Your task to perform on an android device: Open Wikipedia Image 0: 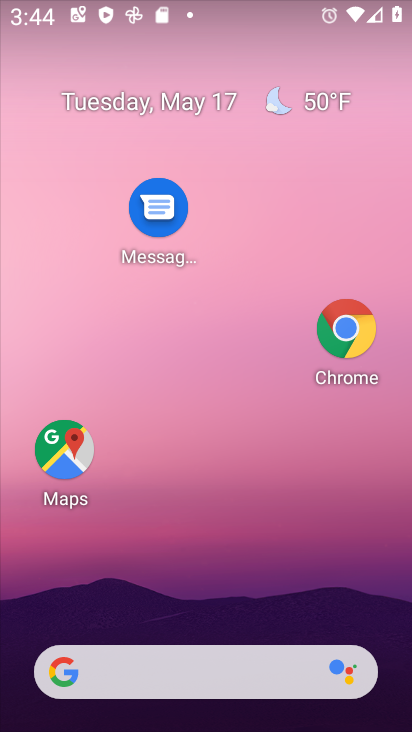
Step 0: click (348, 369)
Your task to perform on an android device: Open Wikipedia Image 1: 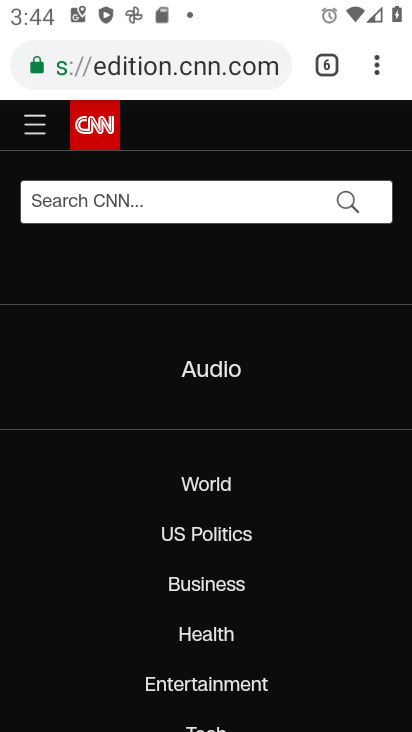
Step 1: click (221, 72)
Your task to perform on an android device: Open Wikipedia Image 2: 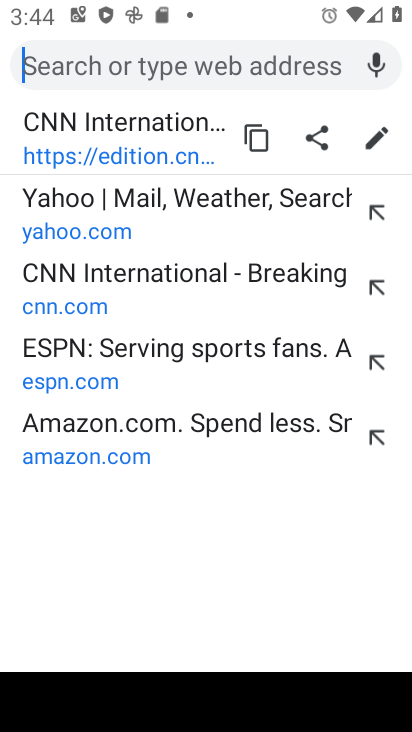
Step 2: type "wiikipedia.com"
Your task to perform on an android device: Open Wikipedia Image 3: 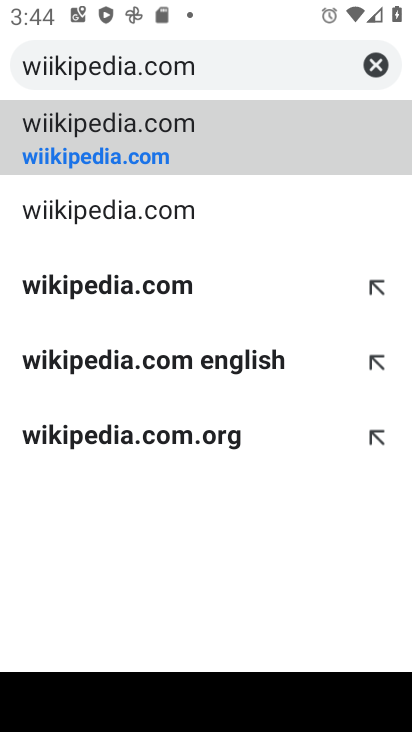
Step 3: click (160, 140)
Your task to perform on an android device: Open Wikipedia Image 4: 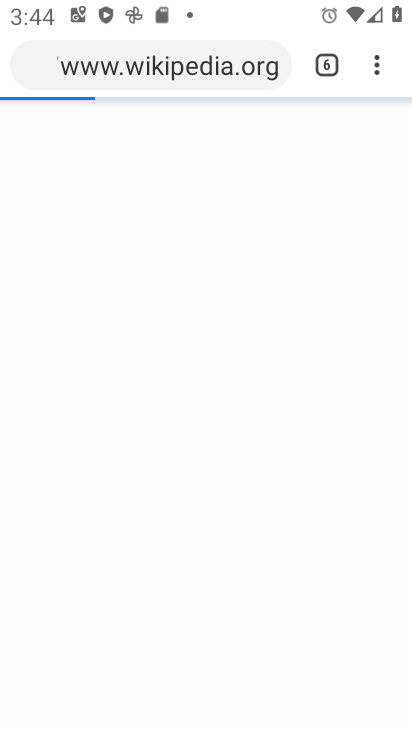
Step 4: task complete